Your task to perform on an android device: Go to notification settings Image 0: 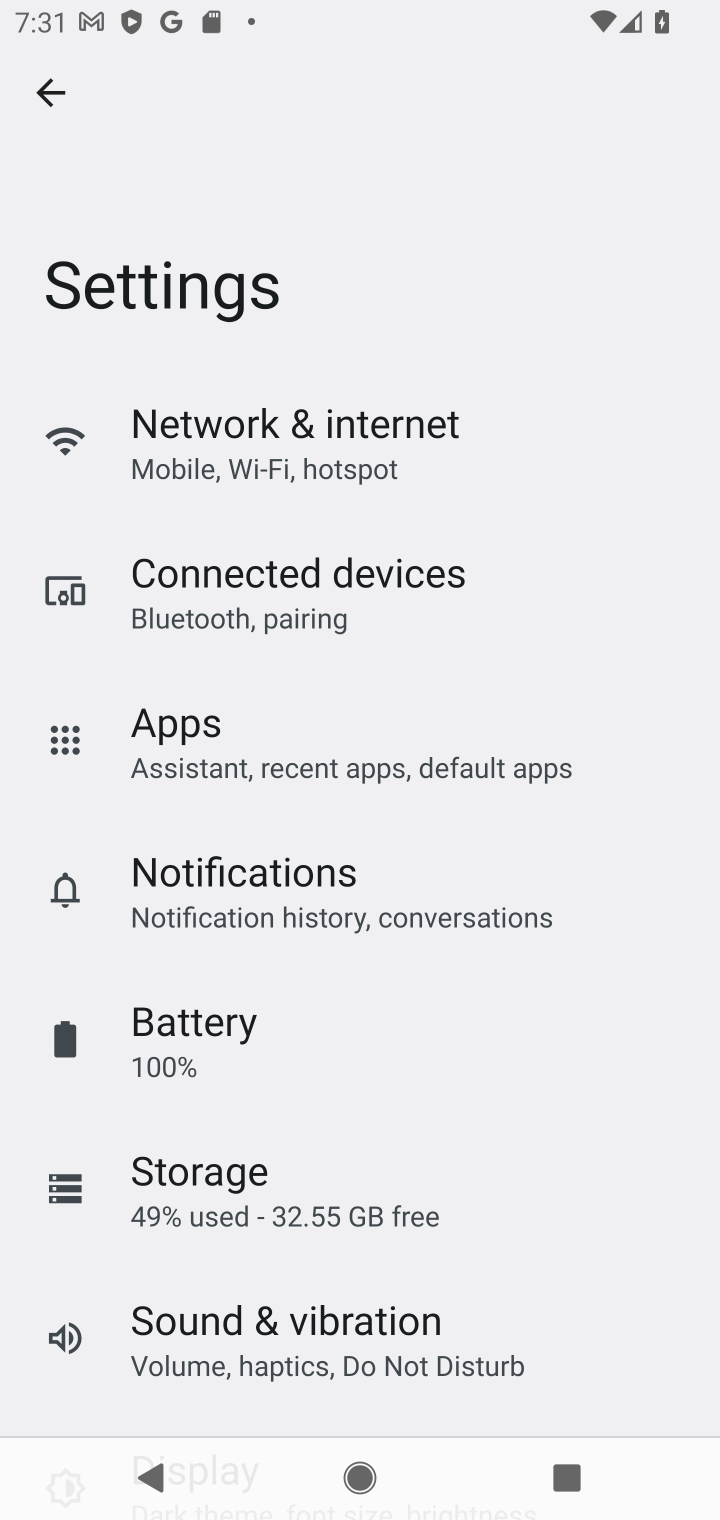
Step 0: click (281, 912)
Your task to perform on an android device: Go to notification settings Image 1: 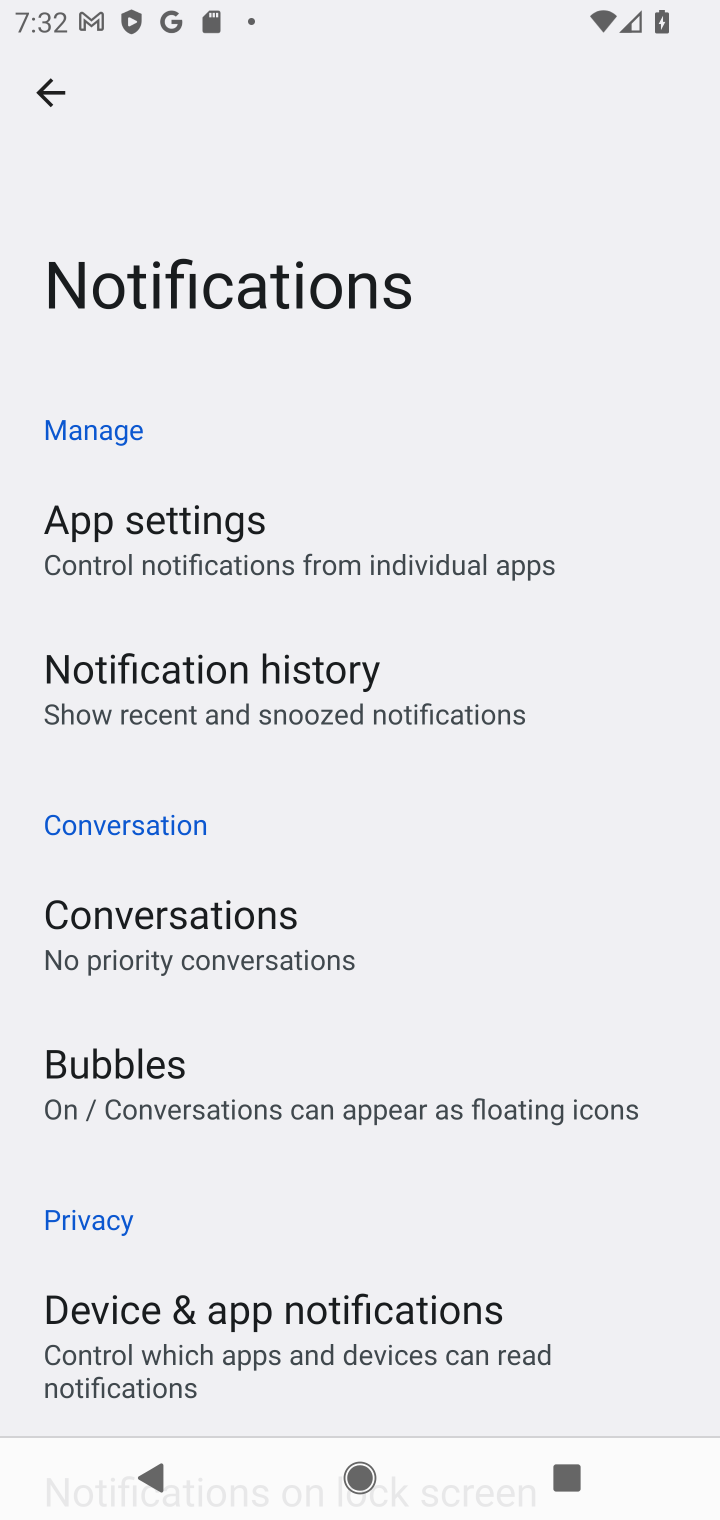
Step 1: task complete